Your task to perform on an android device: Open the phone app and click the voicemail tab. Image 0: 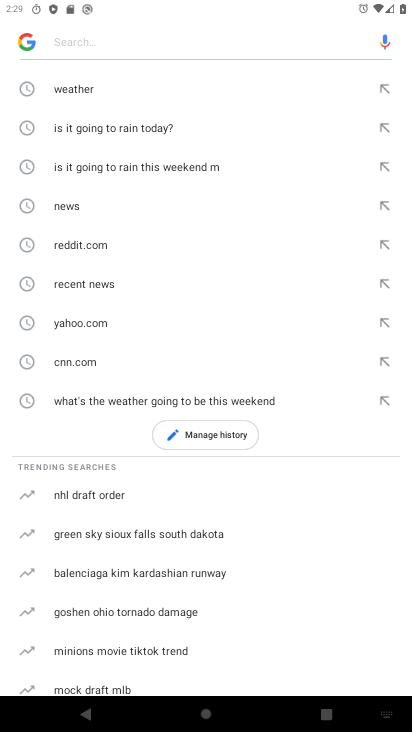
Step 0: press home button
Your task to perform on an android device: Open the phone app and click the voicemail tab. Image 1: 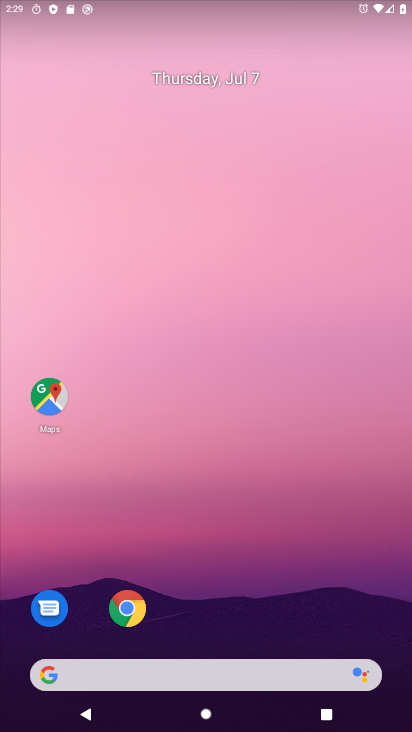
Step 1: drag from (264, 723) to (257, 318)
Your task to perform on an android device: Open the phone app and click the voicemail tab. Image 2: 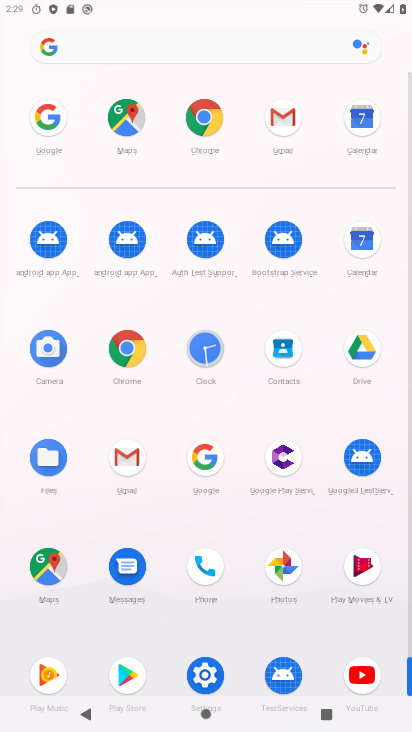
Step 2: click (202, 568)
Your task to perform on an android device: Open the phone app and click the voicemail tab. Image 3: 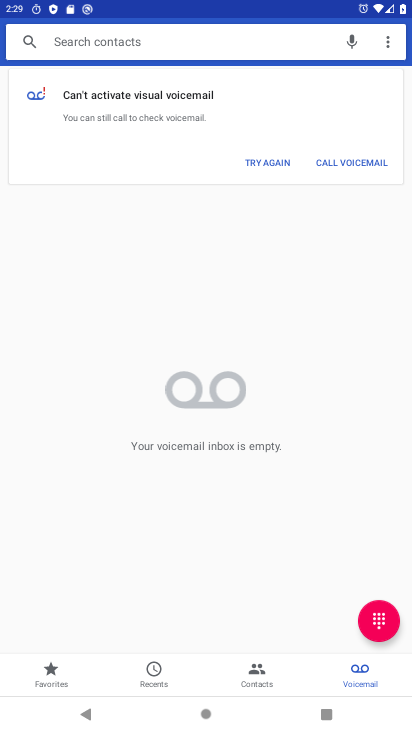
Step 3: click (363, 667)
Your task to perform on an android device: Open the phone app and click the voicemail tab. Image 4: 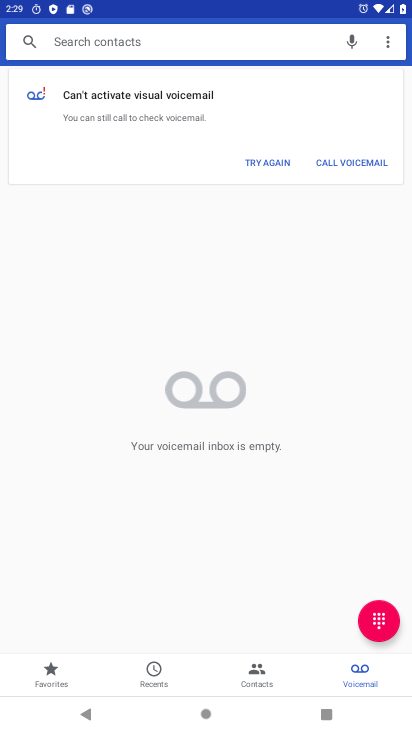
Step 4: task complete